Your task to perform on an android device: clear all cookies in the chrome app Image 0: 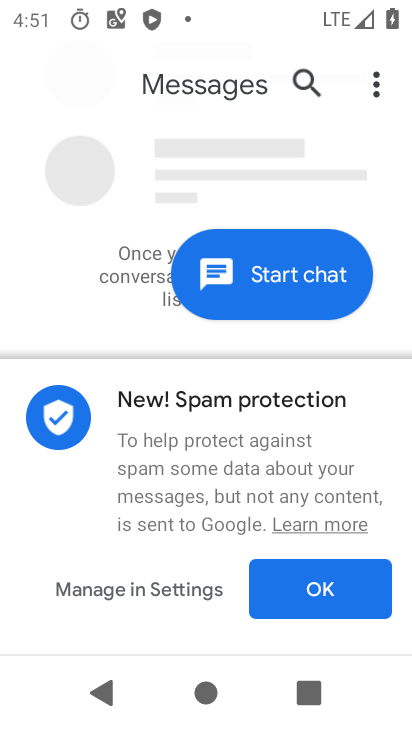
Step 0: press home button
Your task to perform on an android device: clear all cookies in the chrome app Image 1: 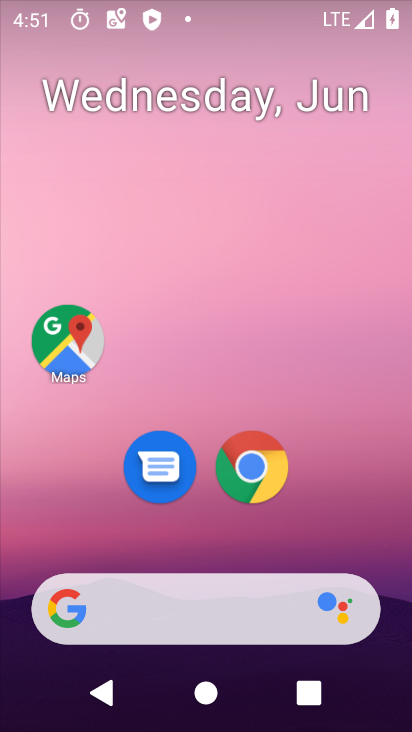
Step 1: click (250, 478)
Your task to perform on an android device: clear all cookies in the chrome app Image 2: 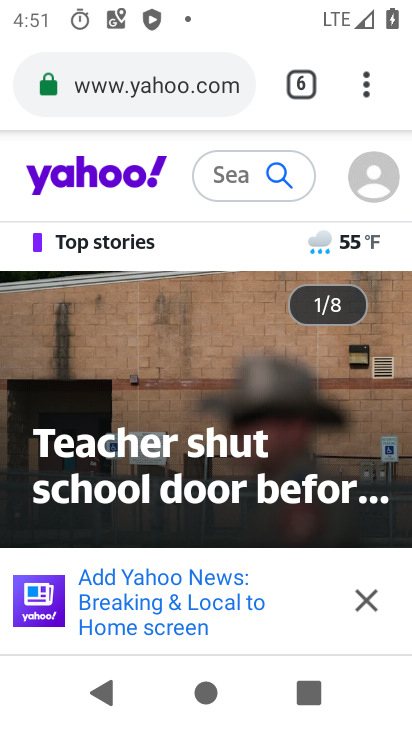
Step 2: click (364, 74)
Your task to perform on an android device: clear all cookies in the chrome app Image 3: 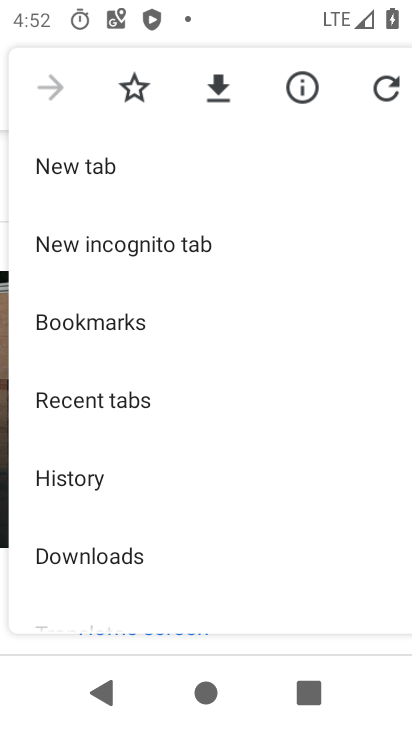
Step 3: click (136, 473)
Your task to perform on an android device: clear all cookies in the chrome app Image 4: 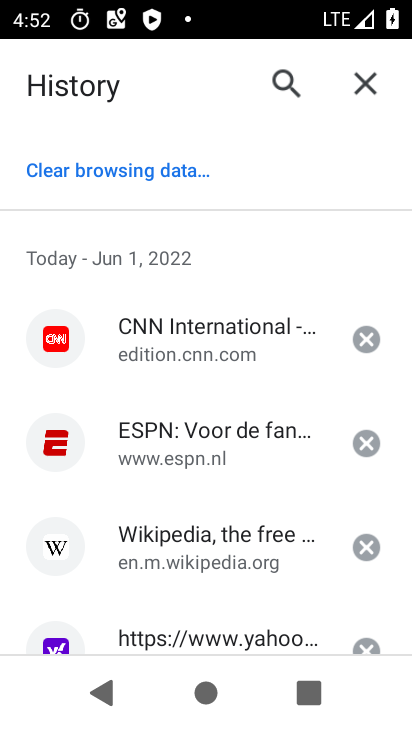
Step 4: click (156, 172)
Your task to perform on an android device: clear all cookies in the chrome app Image 5: 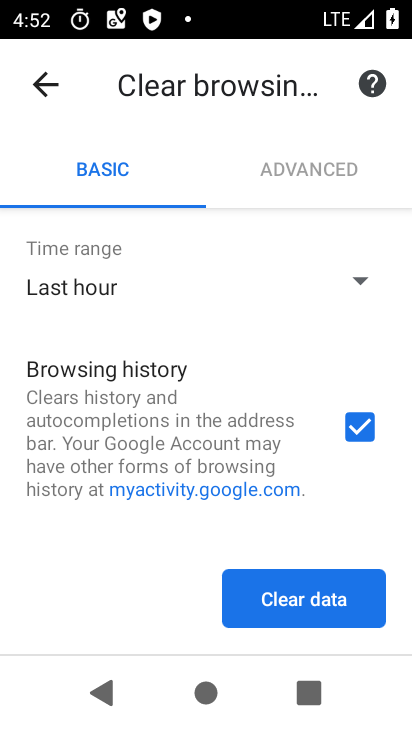
Step 5: click (290, 603)
Your task to perform on an android device: clear all cookies in the chrome app Image 6: 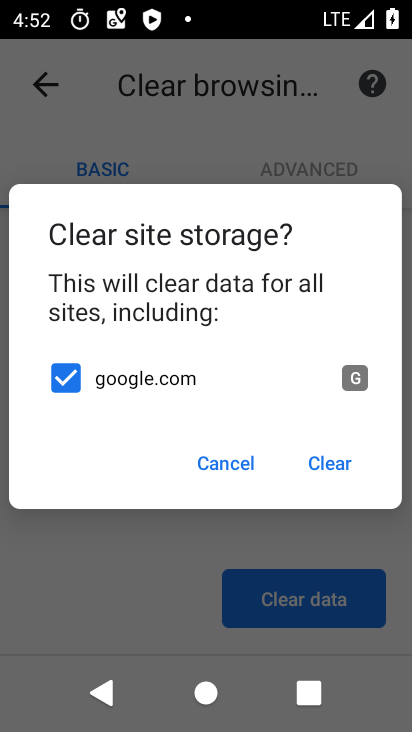
Step 6: click (335, 456)
Your task to perform on an android device: clear all cookies in the chrome app Image 7: 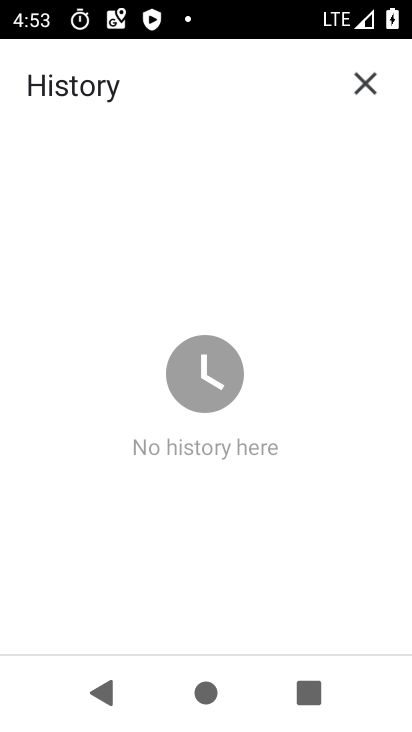
Step 7: task complete